Your task to perform on an android device: Open Google Chrome and click the shortcut for Amazon.com Image 0: 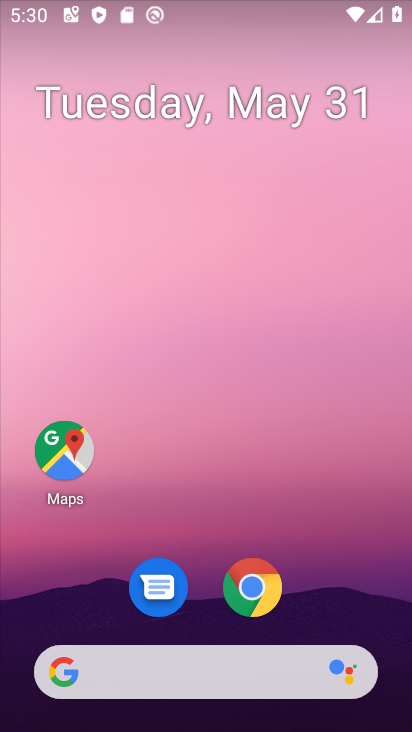
Step 0: click (256, 592)
Your task to perform on an android device: Open Google Chrome and click the shortcut for Amazon.com Image 1: 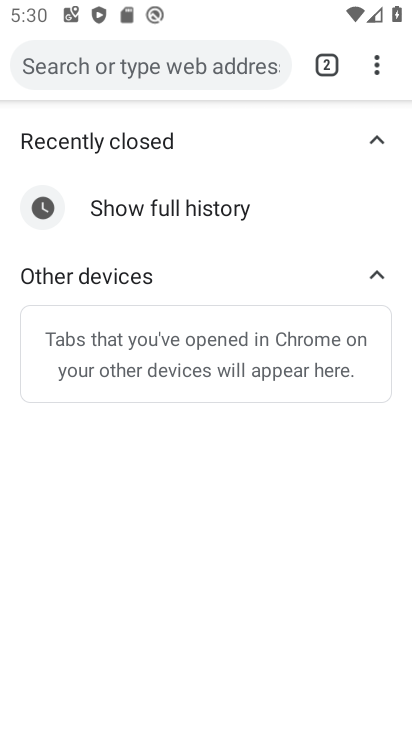
Step 1: click (334, 61)
Your task to perform on an android device: Open Google Chrome and click the shortcut for Amazon.com Image 2: 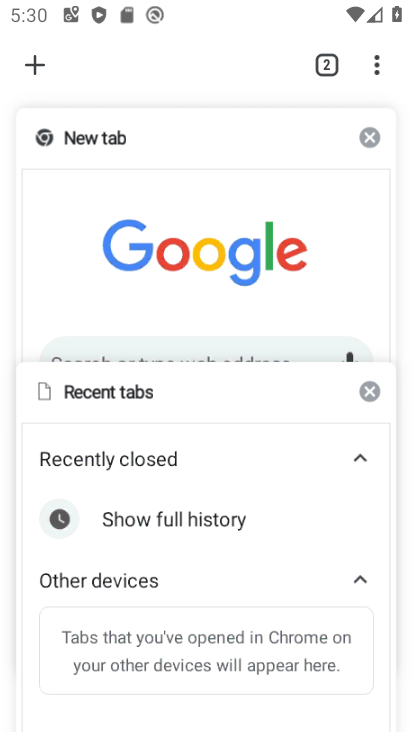
Step 2: click (108, 202)
Your task to perform on an android device: Open Google Chrome and click the shortcut for Amazon.com Image 3: 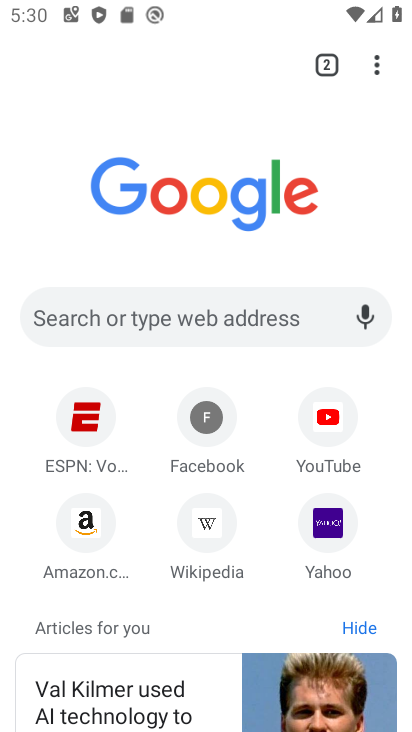
Step 3: click (80, 518)
Your task to perform on an android device: Open Google Chrome and click the shortcut for Amazon.com Image 4: 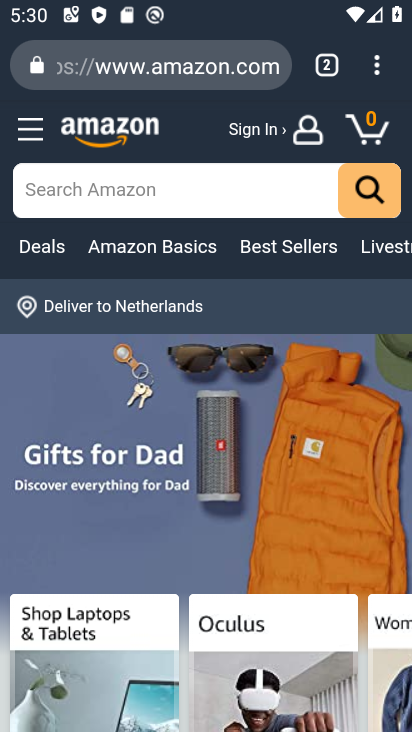
Step 4: task complete